Your task to perform on an android device: turn off translation in the chrome app Image 0: 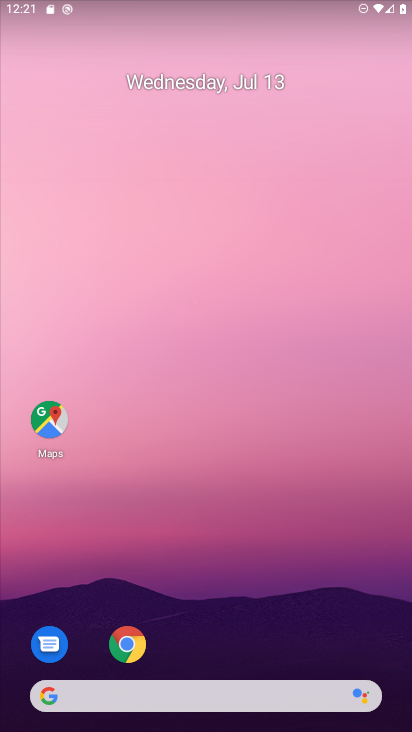
Step 0: click (134, 640)
Your task to perform on an android device: turn off translation in the chrome app Image 1: 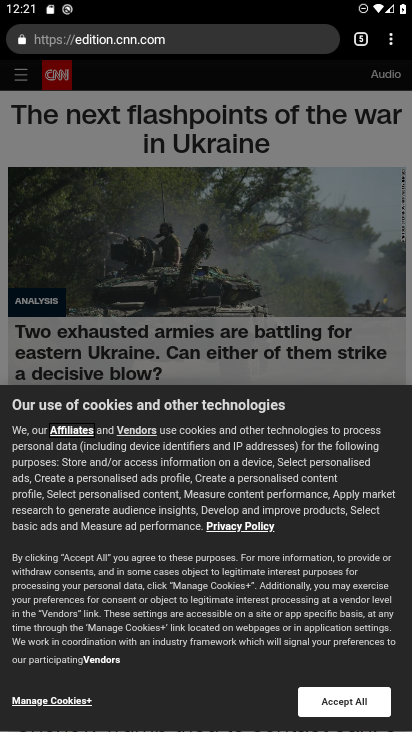
Step 1: click (396, 36)
Your task to perform on an android device: turn off translation in the chrome app Image 2: 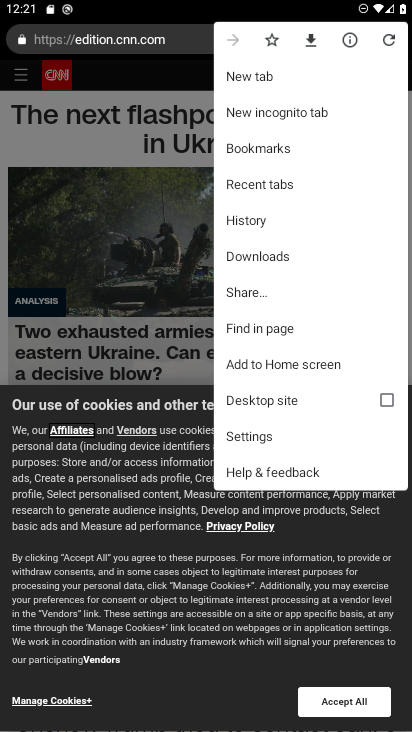
Step 2: click (263, 429)
Your task to perform on an android device: turn off translation in the chrome app Image 3: 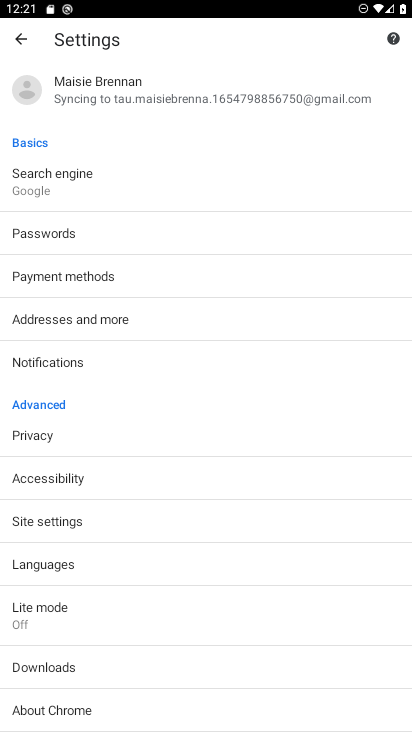
Step 3: click (93, 566)
Your task to perform on an android device: turn off translation in the chrome app Image 4: 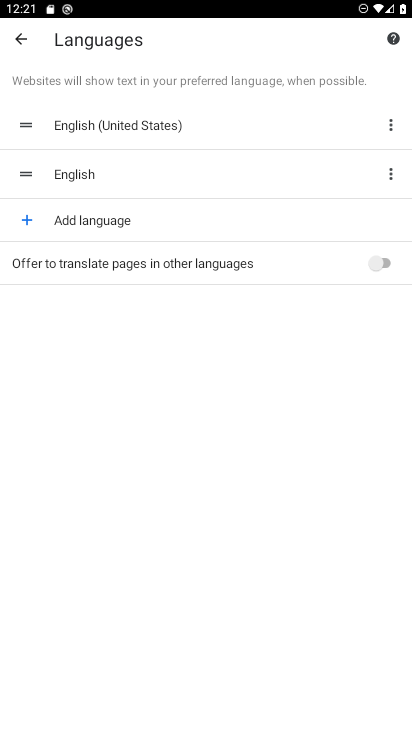
Step 4: task complete